Your task to perform on an android device: open app "YouTube Kids" Image 0: 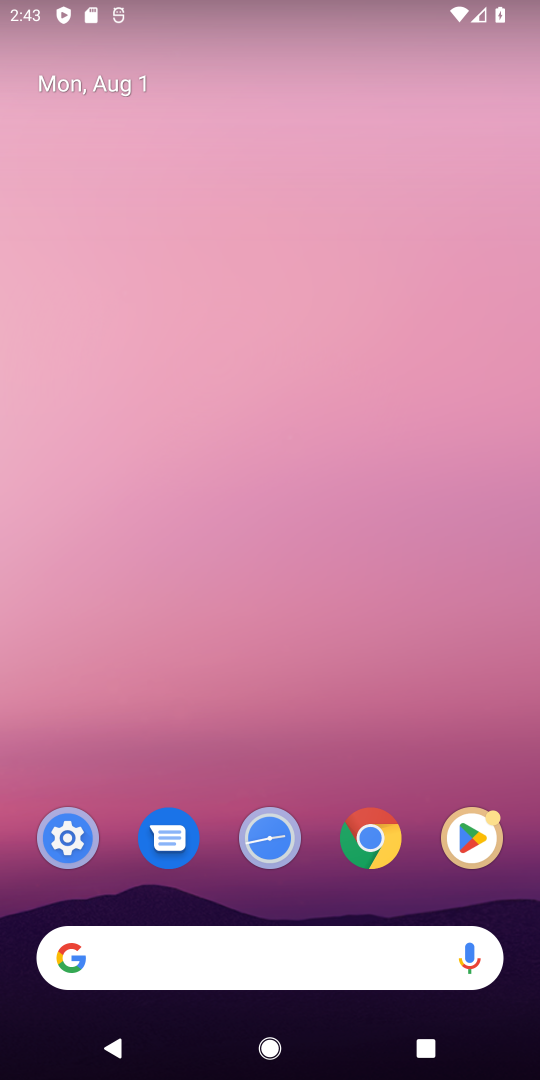
Step 0: drag from (232, 761) to (173, 3)
Your task to perform on an android device: open app "YouTube Kids" Image 1: 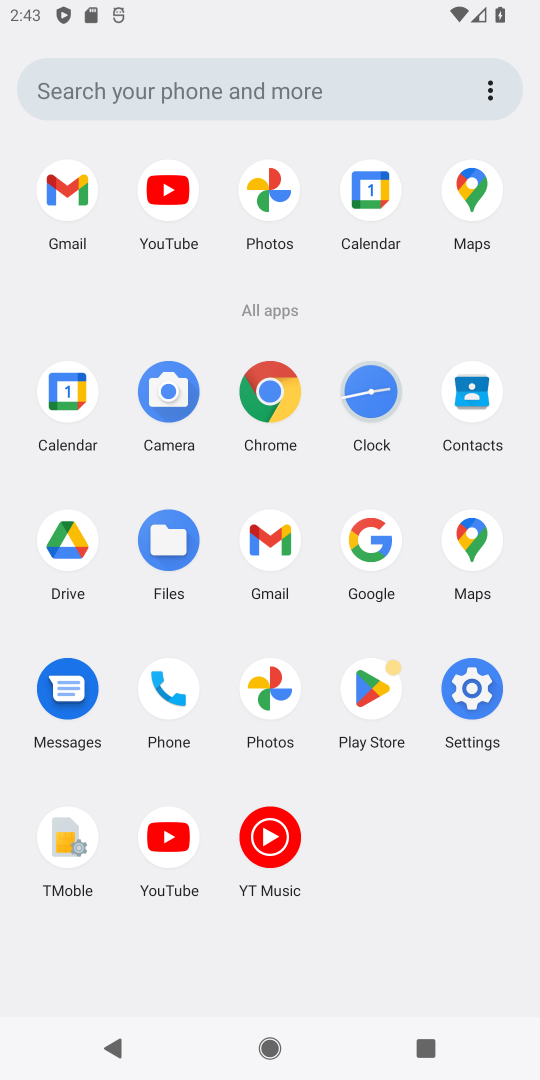
Step 1: click (374, 684)
Your task to perform on an android device: open app "YouTube Kids" Image 2: 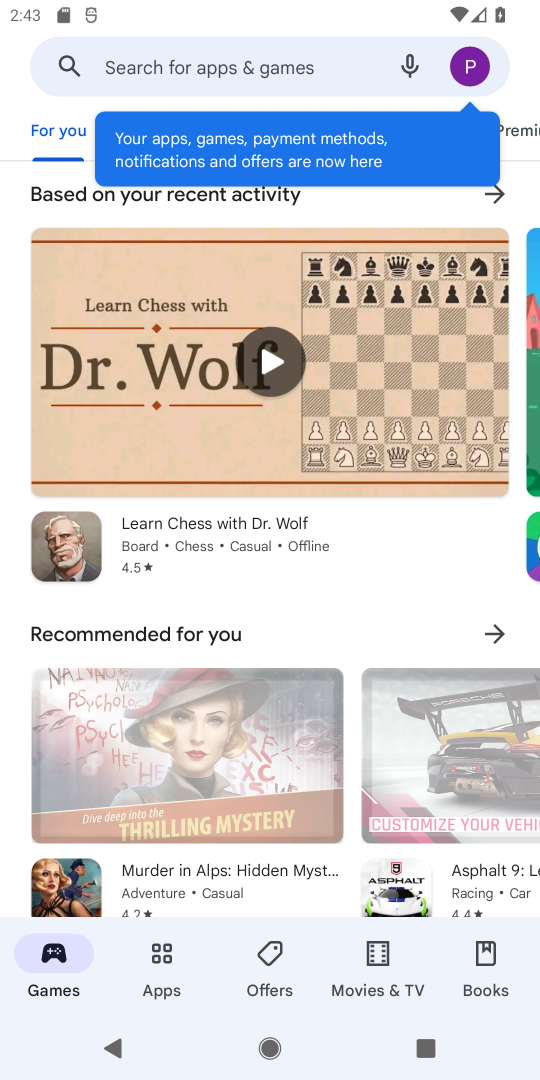
Step 2: click (194, 58)
Your task to perform on an android device: open app "YouTube Kids" Image 3: 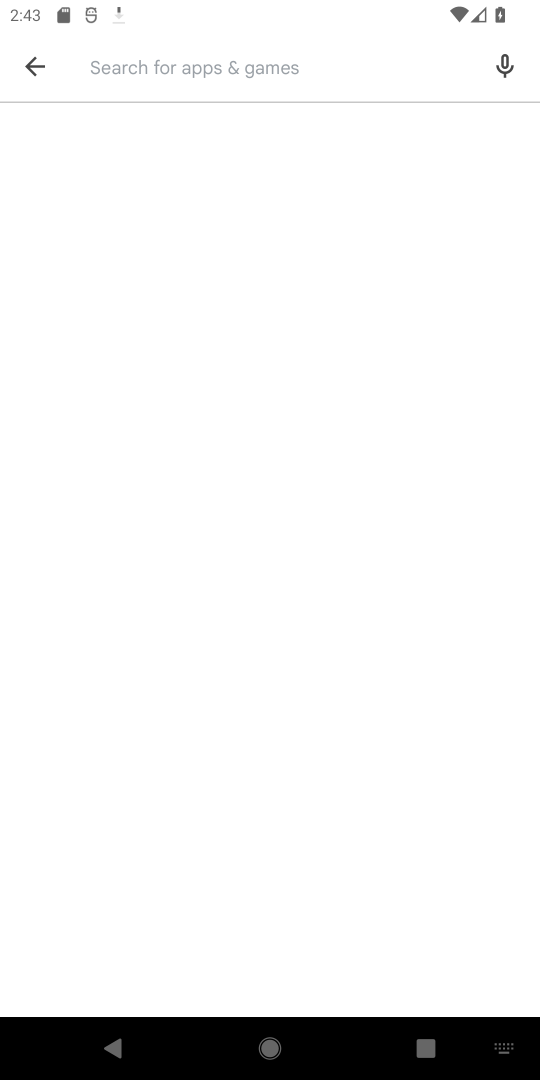
Step 3: type "youtube kids"
Your task to perform on an android device: open app "YouTube Kids" Image 4: 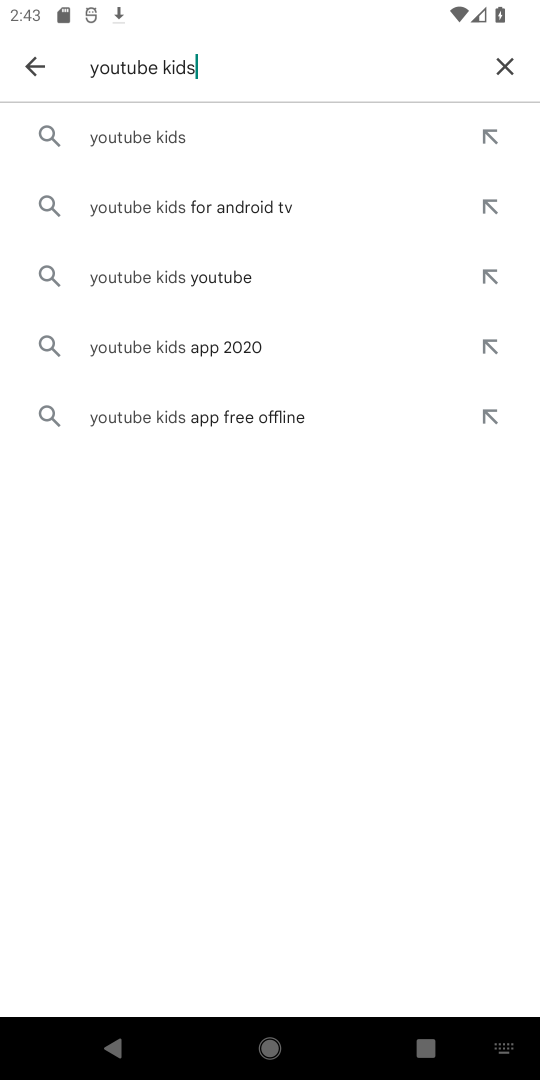
Step 4: click (134, 141)
Your task to perform on an android device: open app "YouTube Kids" Image 5: 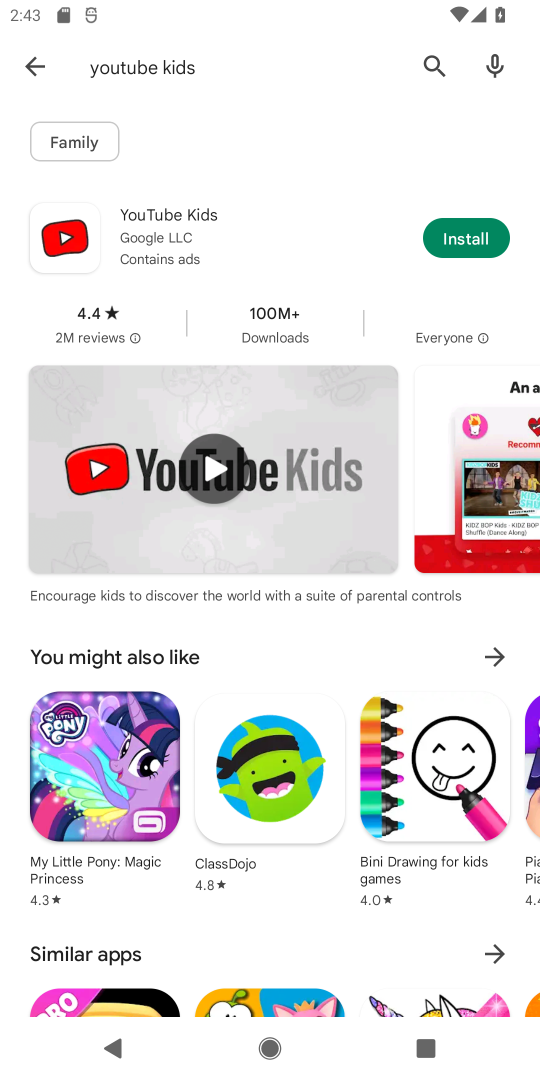
Step 5: task complete